Your task to perform on an android device: change your default location settings in chrome Image 0: 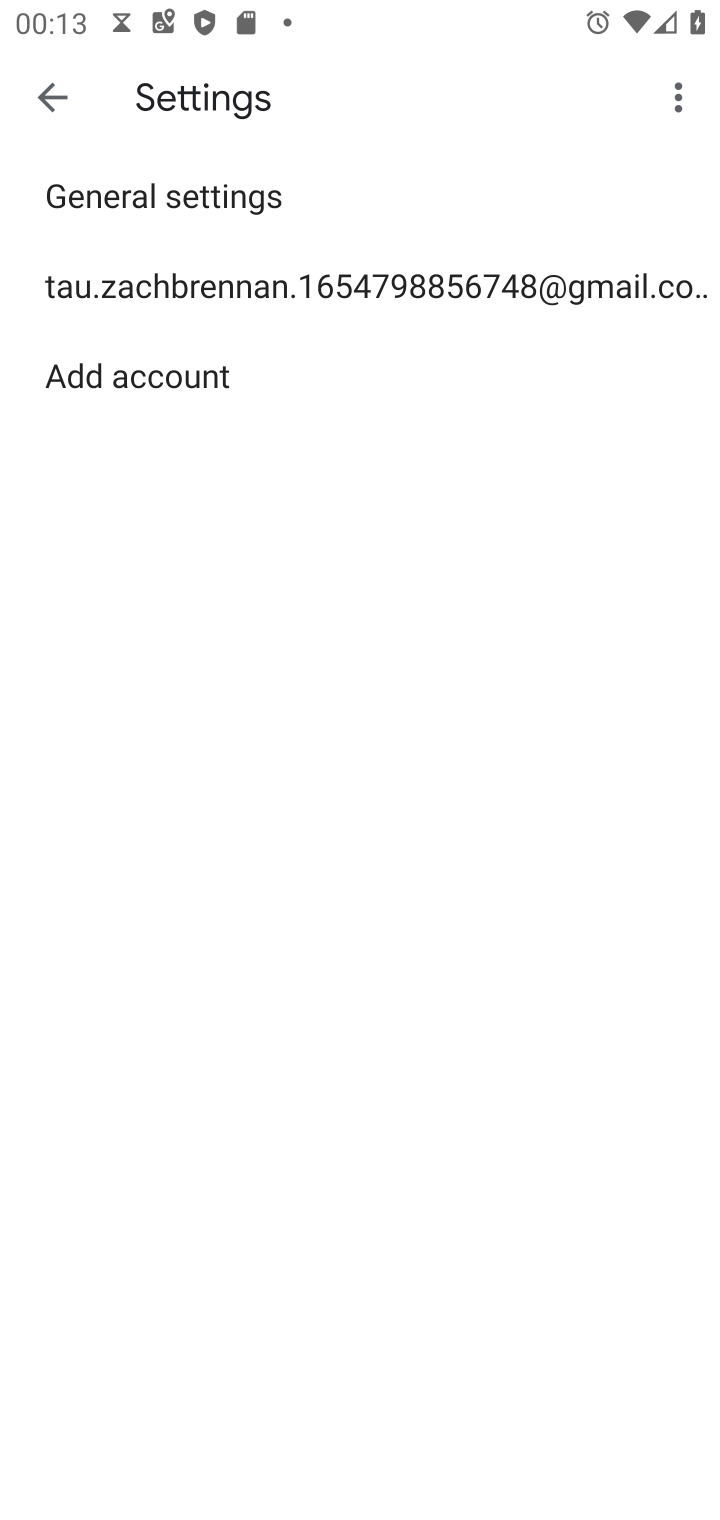
Step 0: press home button
Your task to perform on an android device: change your default location settings in chrome Image 1: 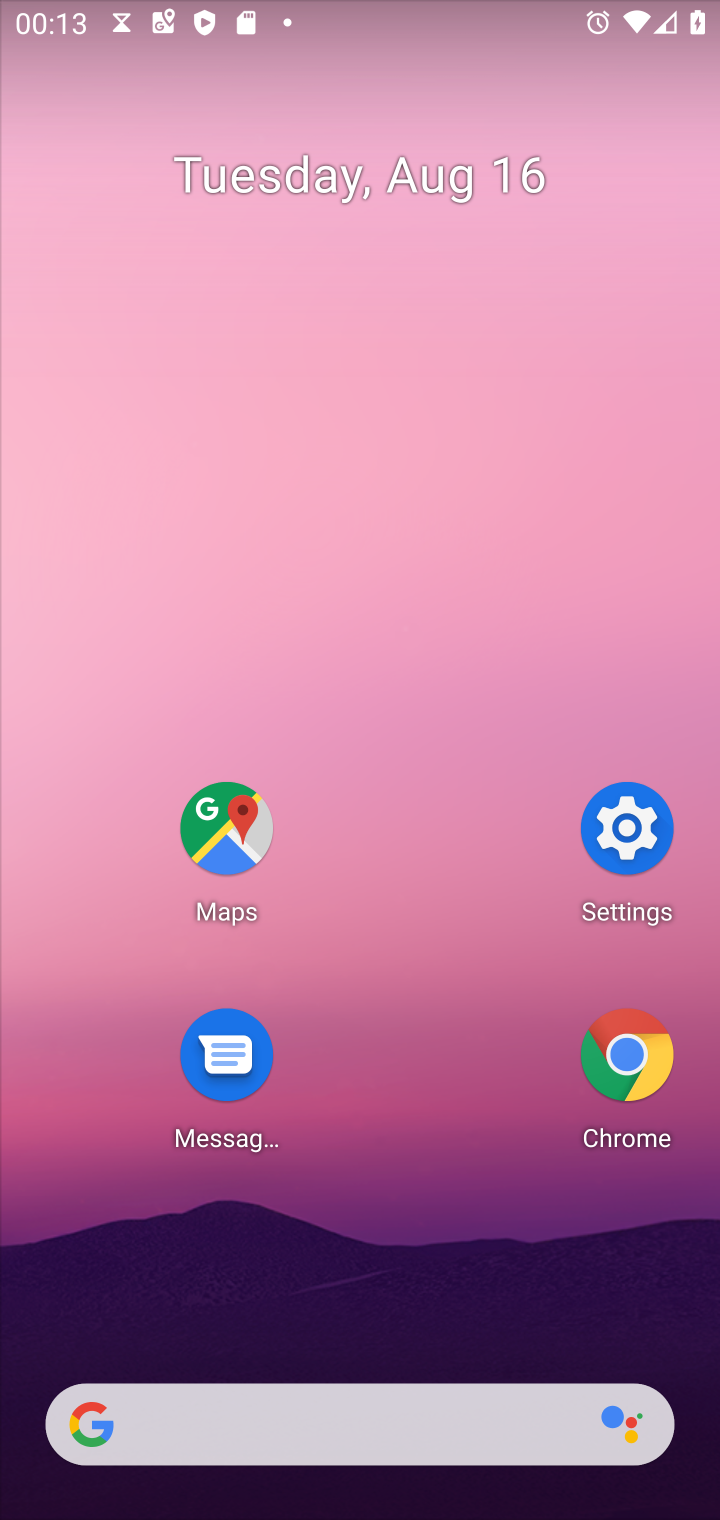
Step 1: click (612, 1066)
Your task to perform on an android device: change your default location settings in chrome Image 2: 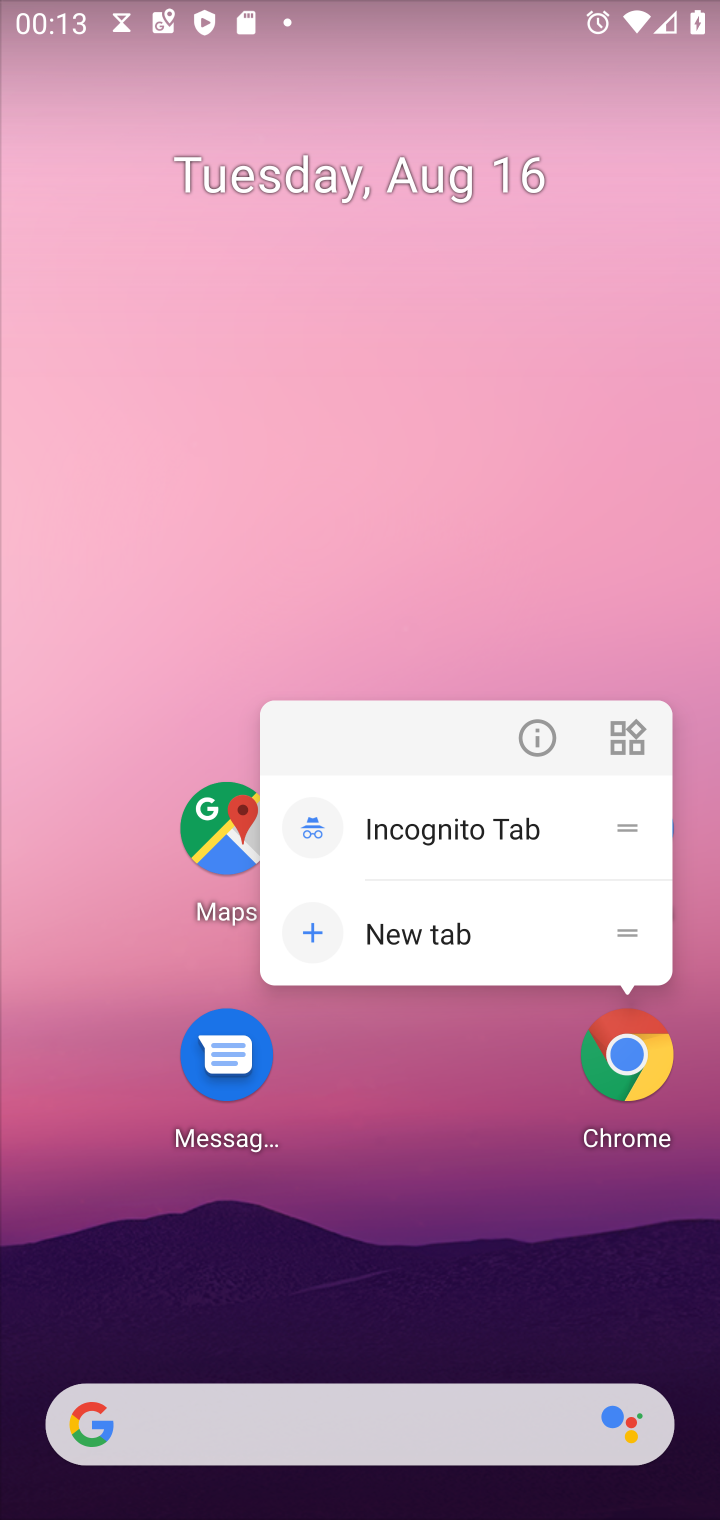
Step 2: click (619, 1085)
Your task to perform on an android device: change your default location settings in chrome Image 3: 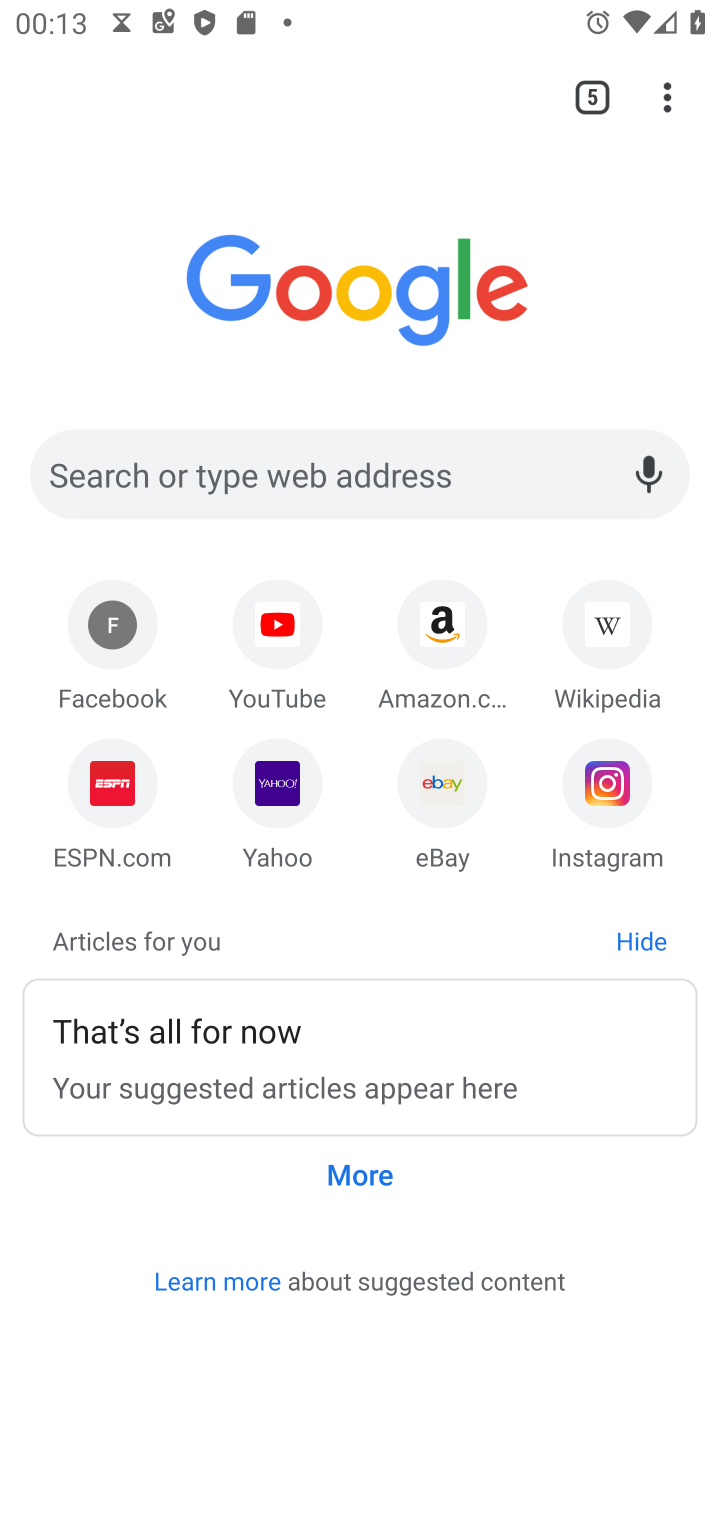
Step 3: drag from (668, 87) to (478, 812)
Your task to perform on an android device: change your default location settings in chrome Image 4: 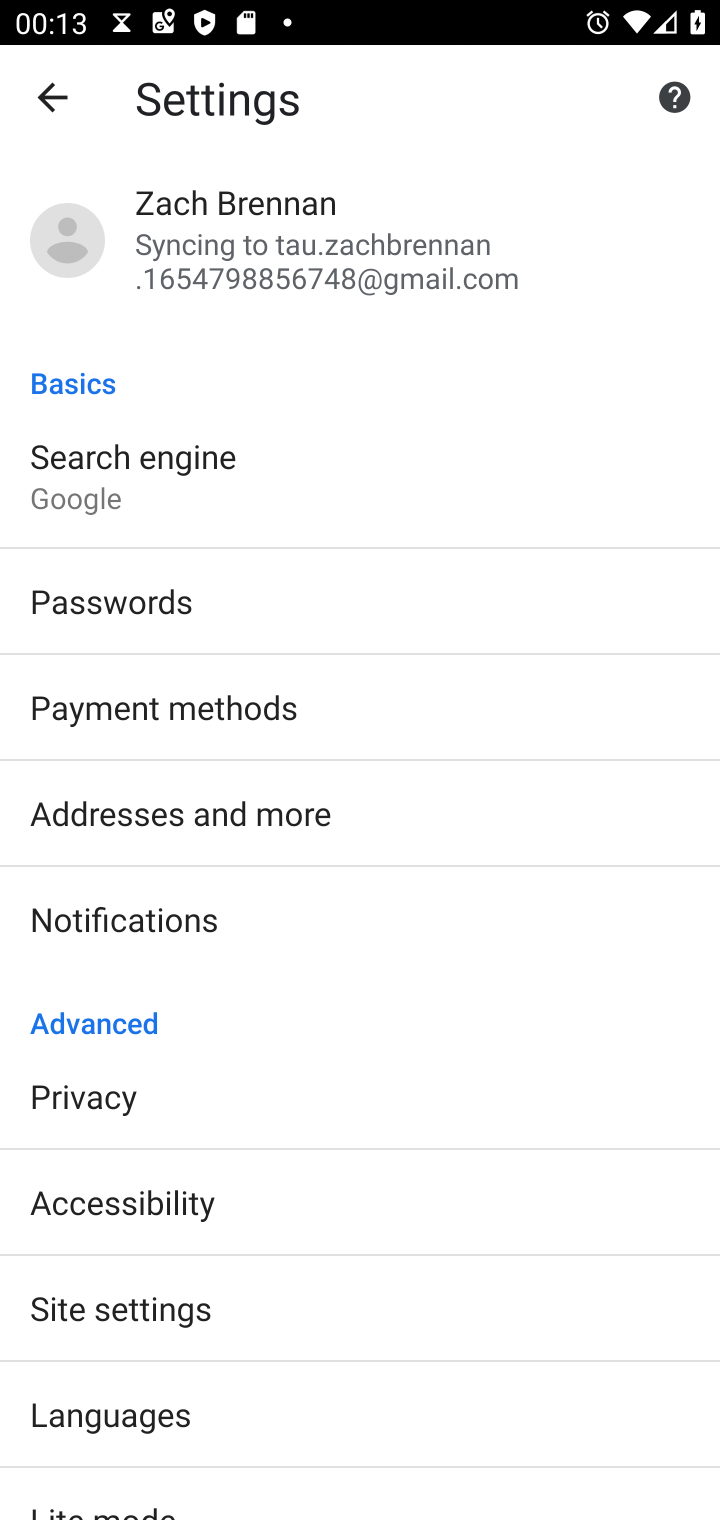
Step 4: drag from (446, 1163) to (506, 432)
Your task to perform on an android device: change your default location settings in chrome Image 5: 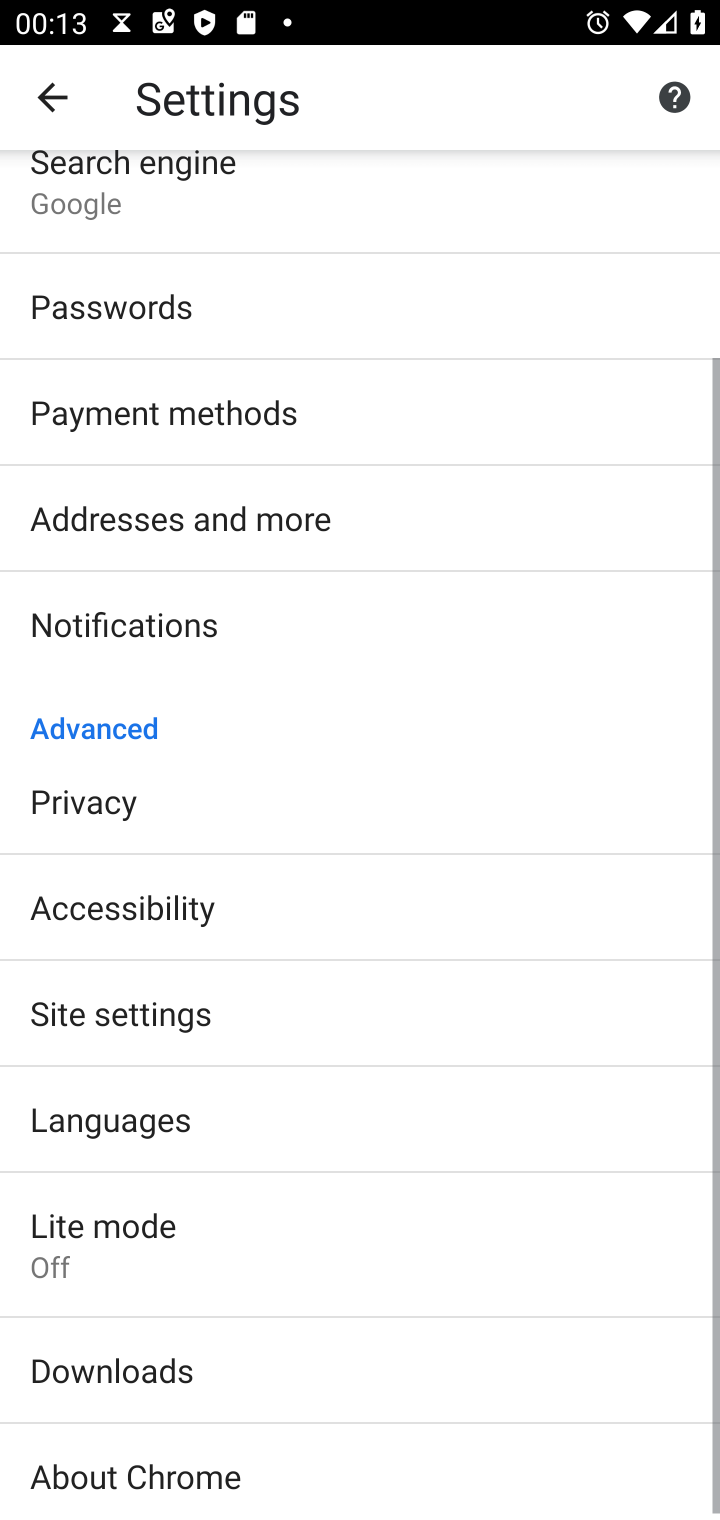
Step 5: click (163, 1001)
Your task to perform on an android device: change your default location settings in chrome Image 6: 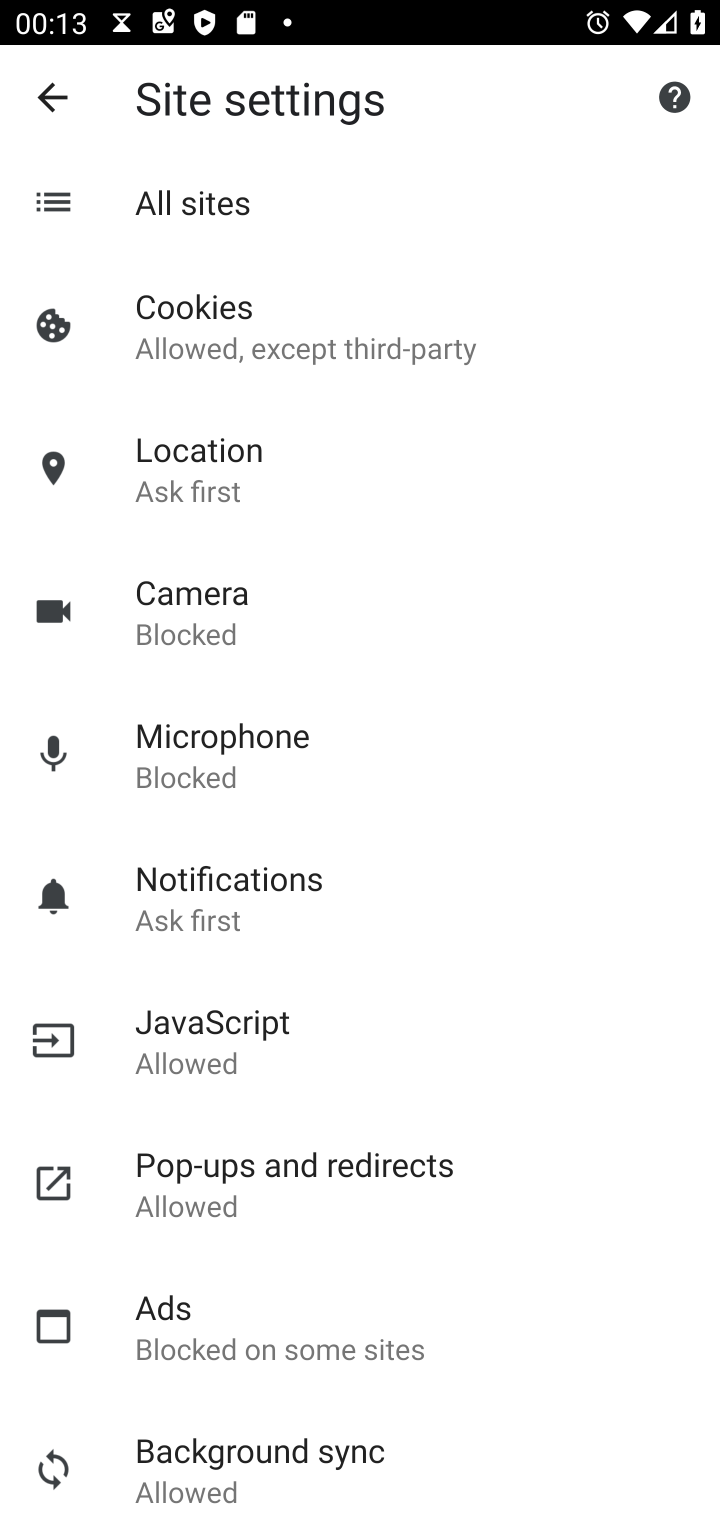
Step 6: click (229, 480)
Your task to perform on an android device: change your default location settings in chrome Image 7: 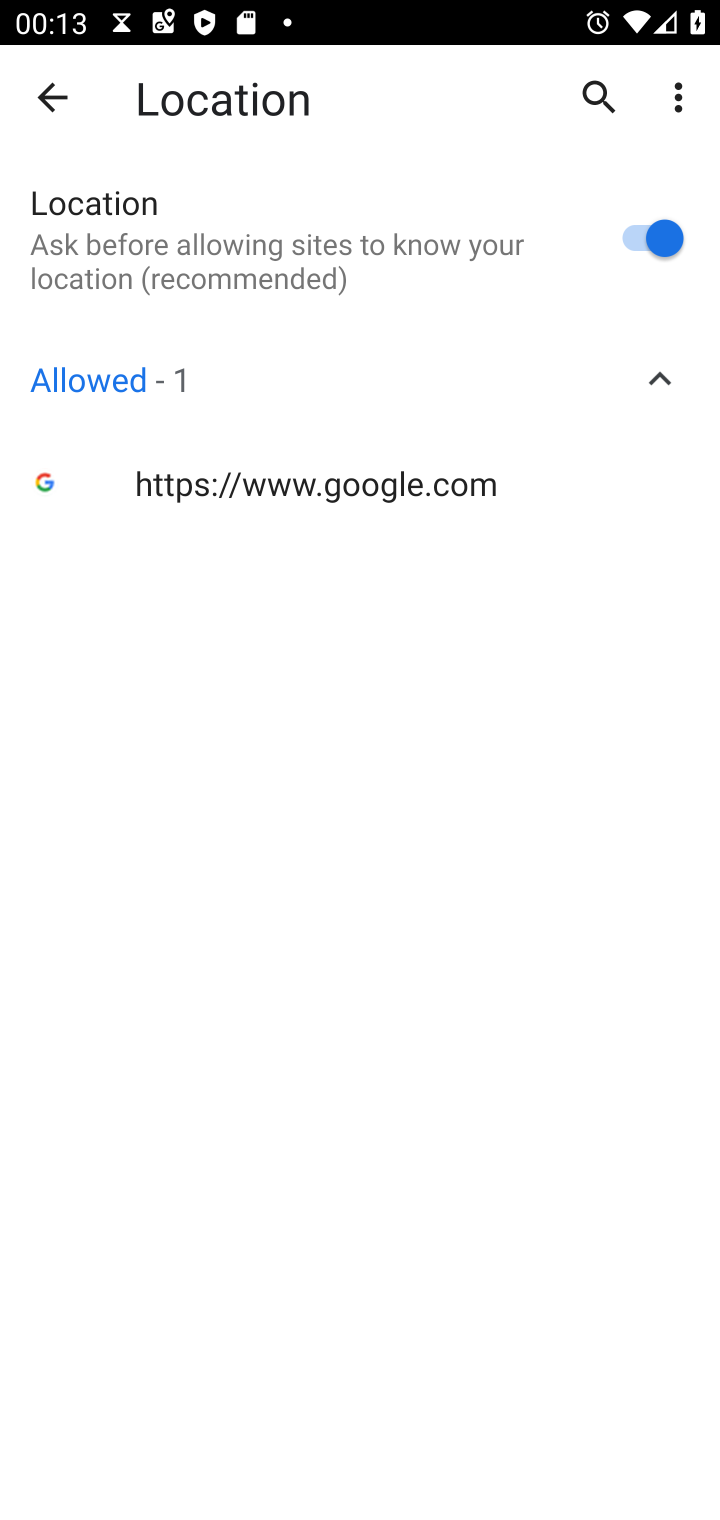
Step 7: click (645, 239)
Your task to perform on an android device: change your default location settings in chrome Image 8: 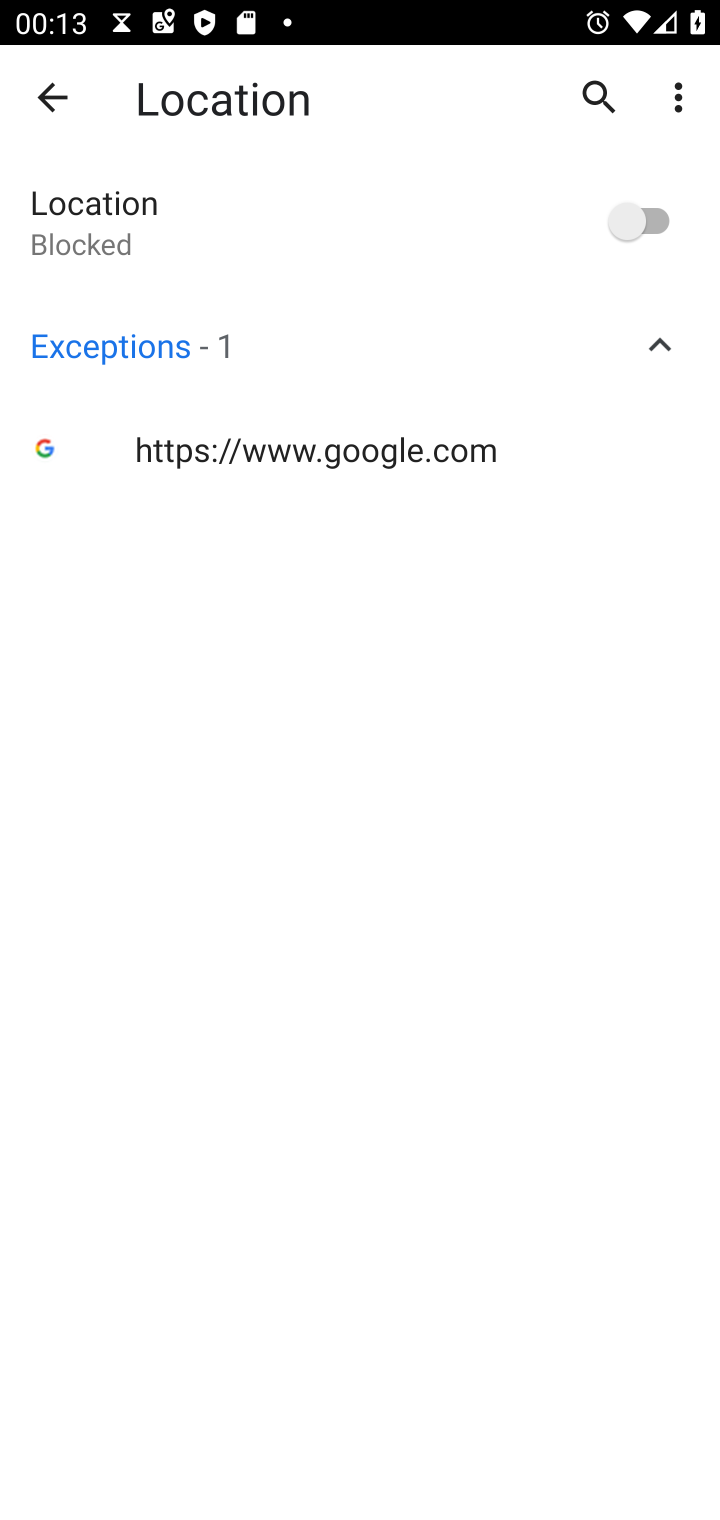
Step 8: task complete